Your task to perform on an android device: turn smart compose on in the gmail app Image 0: 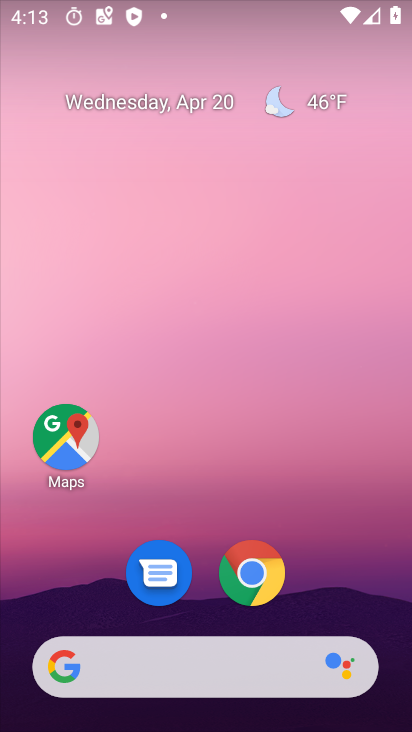
Step 0: drag from (380, 615) to (411, 83)
Your task to perform on an android device: turn smart compose on in the gmail app Image 1: 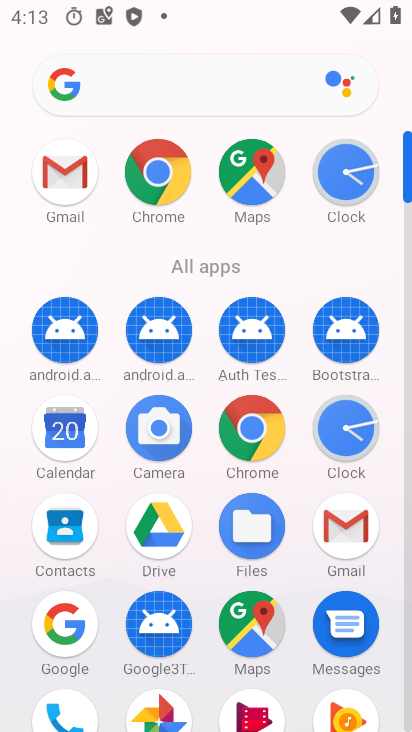
Step 1: click (348, 523)
Your task to perform on an android device: turn smart compose on in the gmail app Image 2: 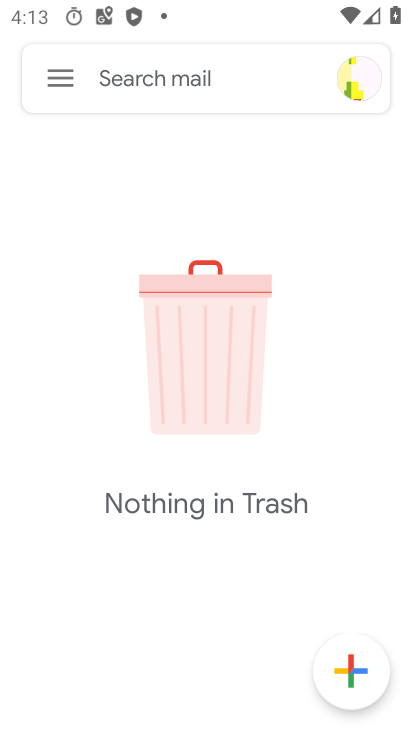
Step 2: click (63, 67)
Your task to perform on an android device: turn smart compose on in the gmail app Image 3: 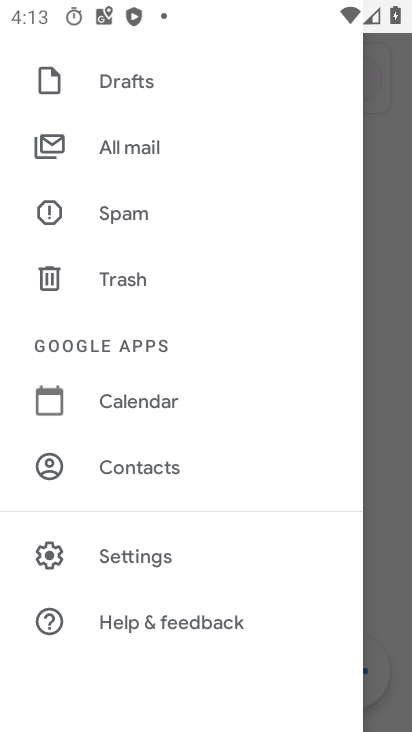
Step 3: click (132, 557)
Your task to perform on an android device: turn smart compose on in the gmail app Image 4: 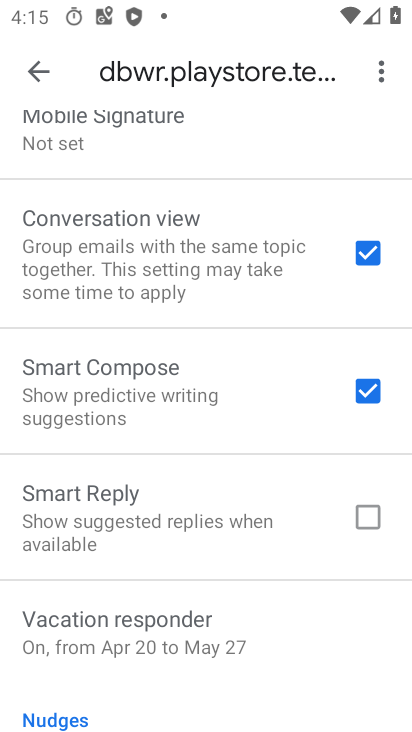
Step 4: task complete